Your task to perform on an android device: Open the calendar app, open the side menu, and click the "Day" option Image 0: 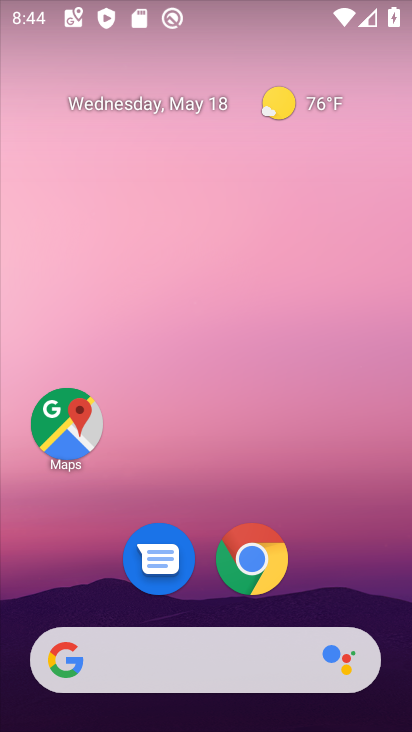
Step 0: drag from (348, 573) to (388, 46)
Your task to perform on an android device: Open the calendar app, open the side menu, and click the "Day" option Image 1: 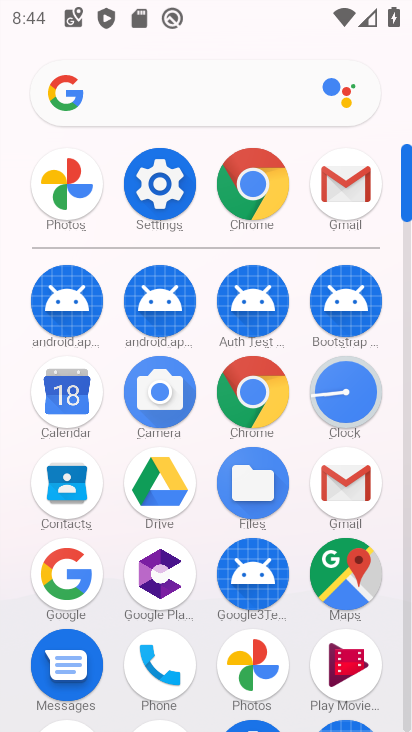
Step 1: click (64, 384)
Your task to perform on an android device: Open the calendar app, open the side menu, and click the "Day" option Image 2: 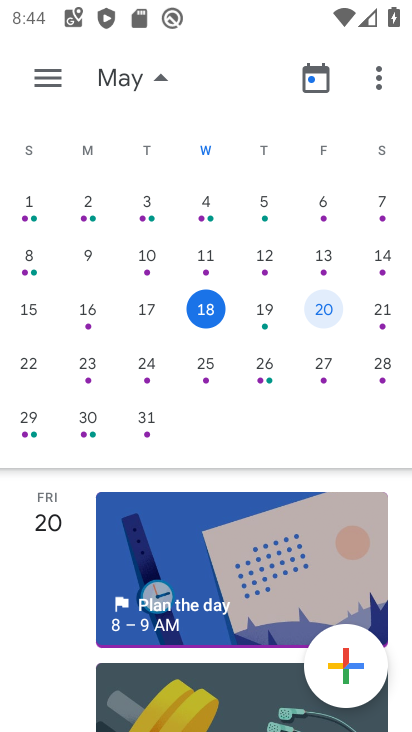
Step 2: click (50, 69)
Your task to perform on an android device: Open the calendar app, open the side menu, and click the "Day" option Image 3: 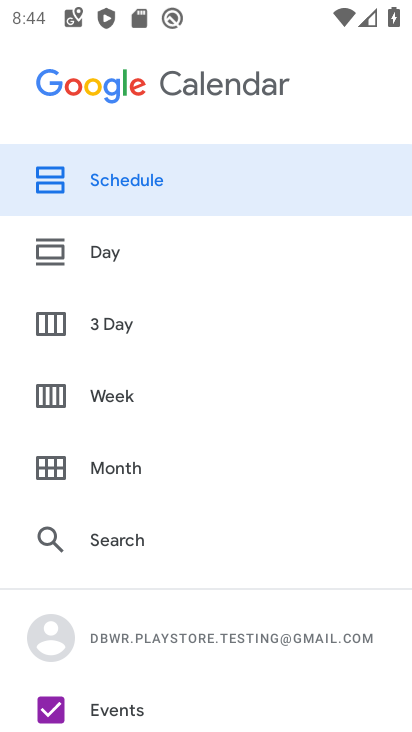
Step 3: click (132, 260)
Your task to perform on an android device: Open the calendar app, open the side menu, and click the "Day" option Image 4: 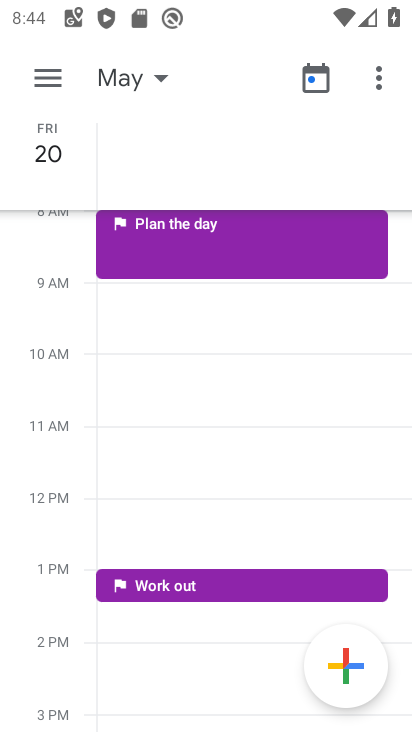
Step 4: click (154, 75)
Your task to perform on an android device: Open the calendar app, open the side menu, and click the "Day" option Image 5: 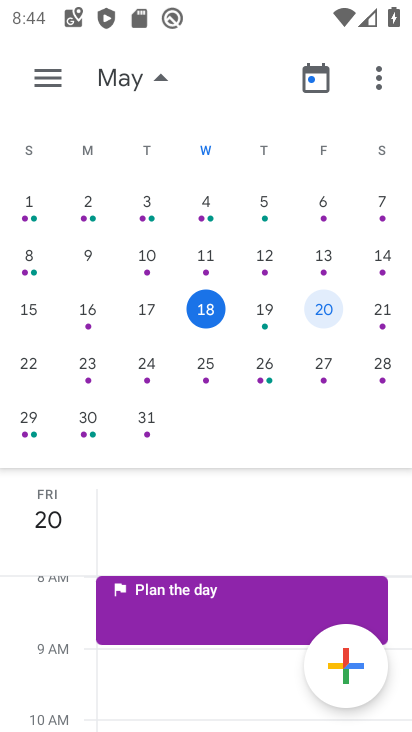
Step 5: click (204, 311)
Your task to perform on an android device: Open the calendar app, open the side menu, and click the "Day" option Image 6: 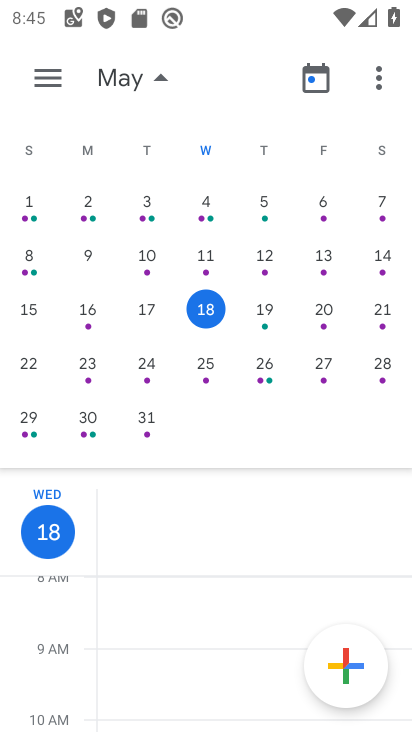
Step 6: click (53, 83)
Your task to perform on an android device: Open the calendar app, open the side menu, and click the "Day" option Image 7: 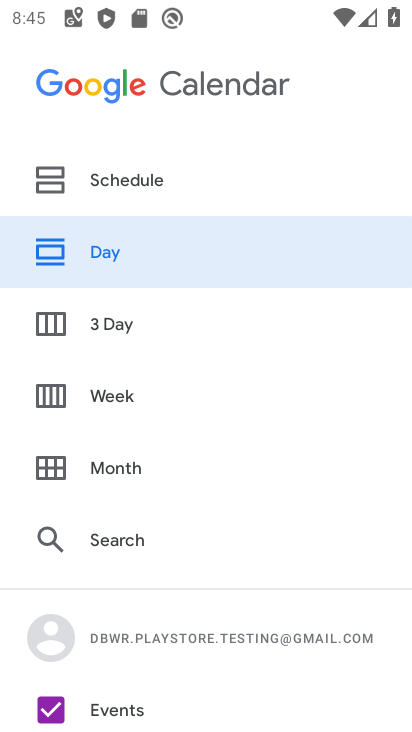
Step 7: click (135, 240)
Your task to perform on an android device: Open the calendar app, open the side menu, and click the "Day" option Image 8: 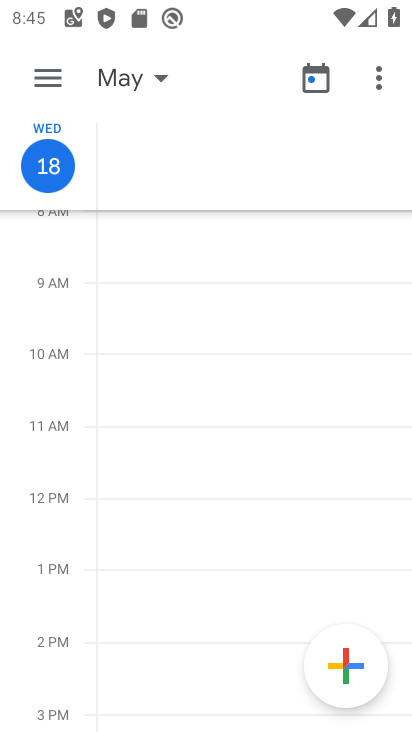
Step 8: task complete